Your task to perform on an android device: Open the phone app and click the voicemail tab. Image 0: 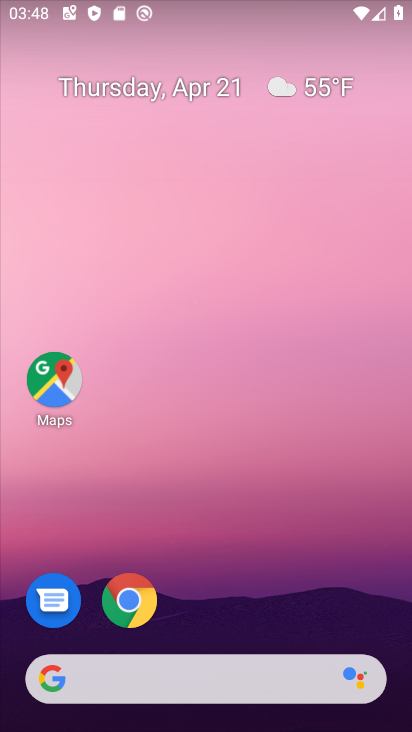
Step 0: drag from (296, 570) to (226, 8)
Your task to perform on an android device: Open the phone app and click the voicemail tab. Image 1: 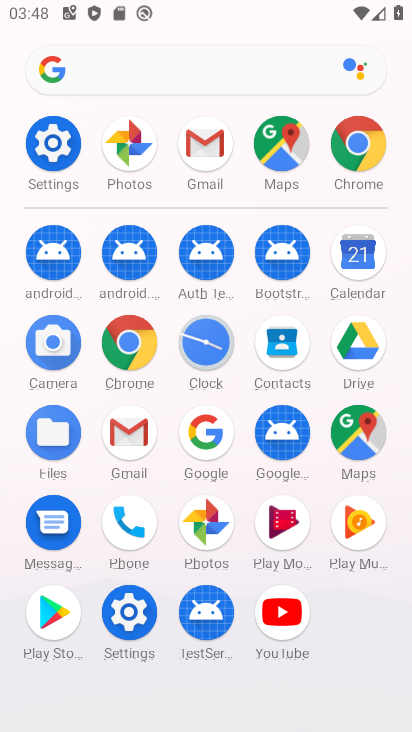
Step 1: click (109, 518)
Your task to perform on an android device: Open the phone app and click the voicemail tab. Image 2: 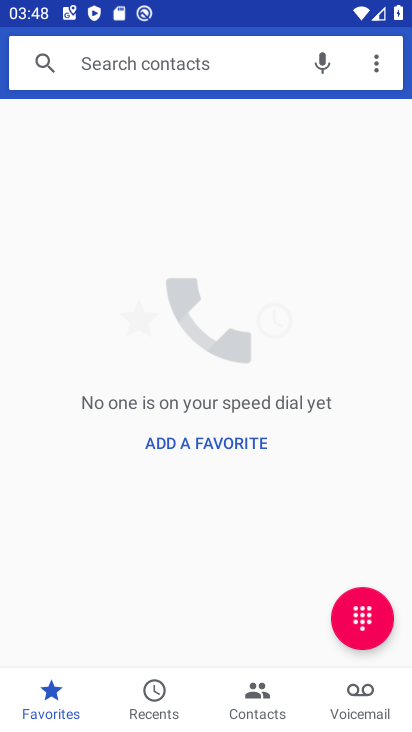
Step 2: click (355, 705)
Your task to perform on an android device: Open the phone app and click the voicemail tab. Image 3: 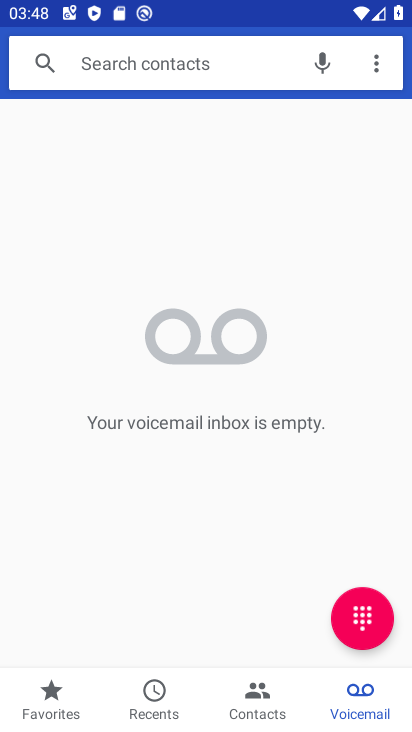
Step 3: task complete